Your task to perform on an android device: turn on data saver in the chrome app Image 0: 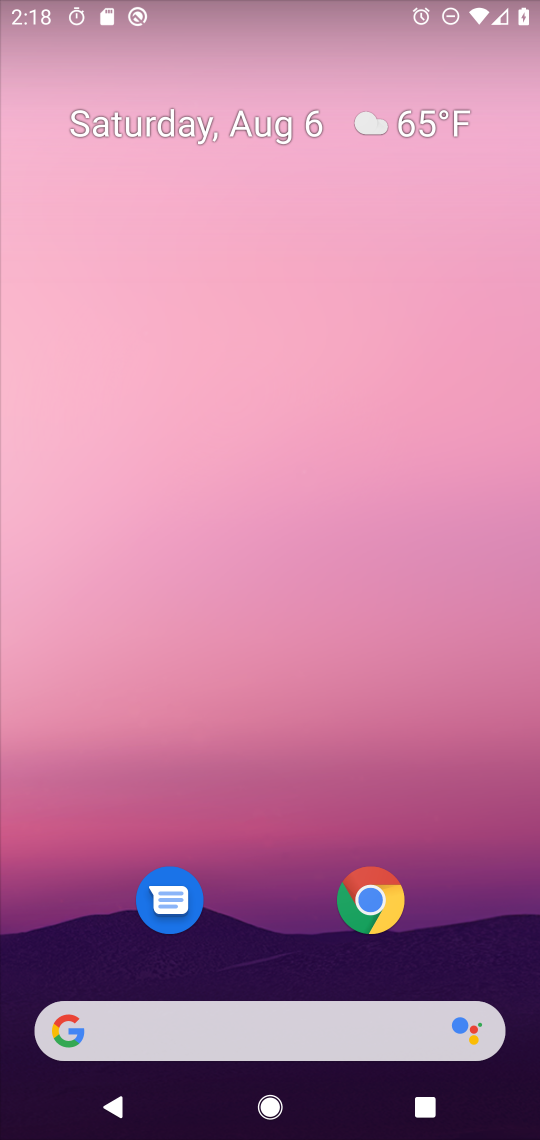
Step 0: drag from (266, 905) to (277, 103)
Your task to perform on an android device: turn on data saver in the chrome app Image 1: 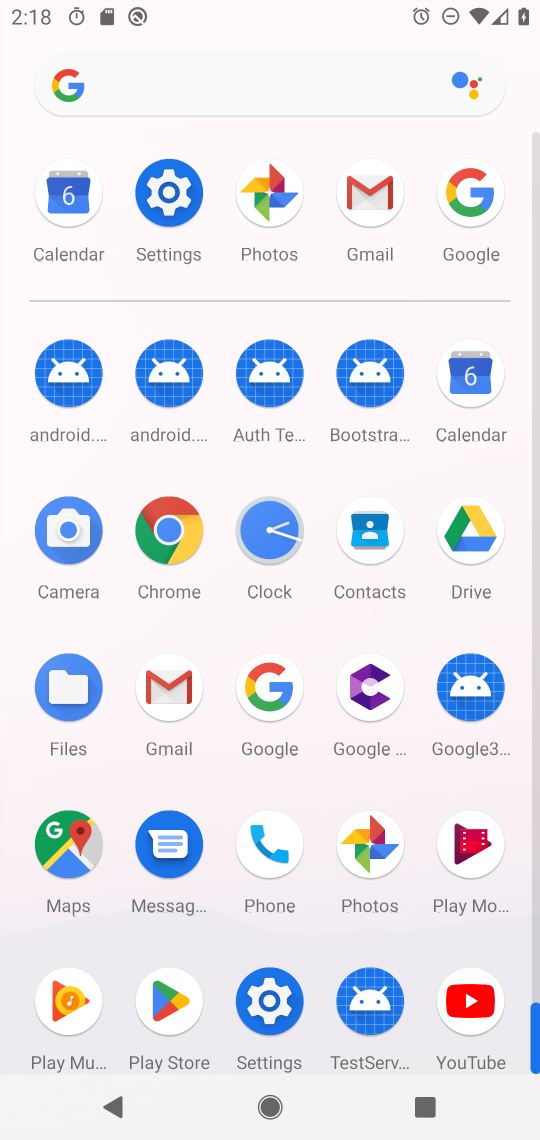
Step 1: click (166, 538)
Your task to perform on an android device: turn on data saver in the chrome app Image 2: 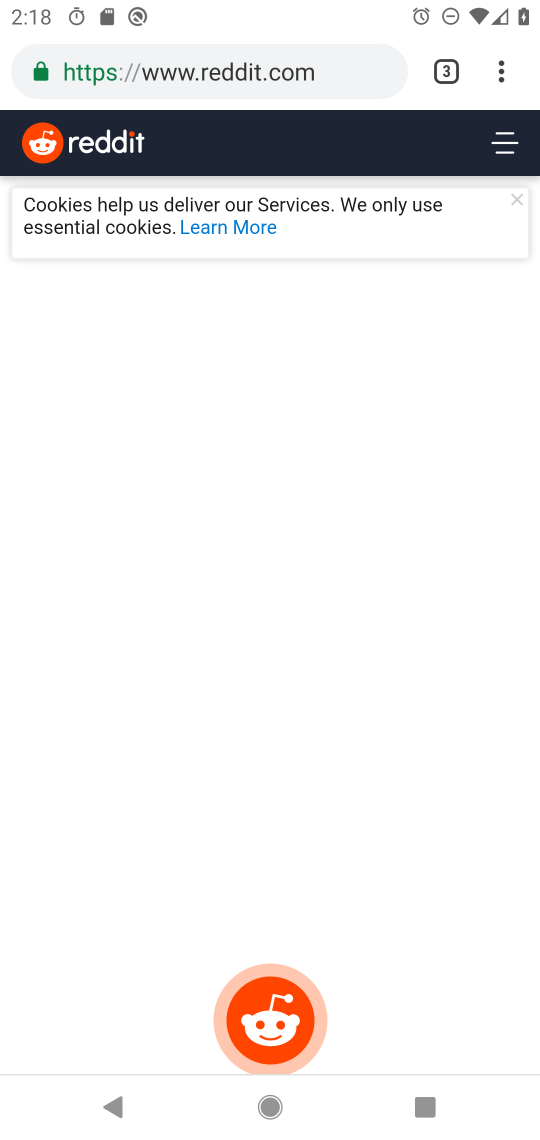
Step 2: click (500, 79)
Your task to perform on an android device: turn on data saver in the chrome app Image 3: 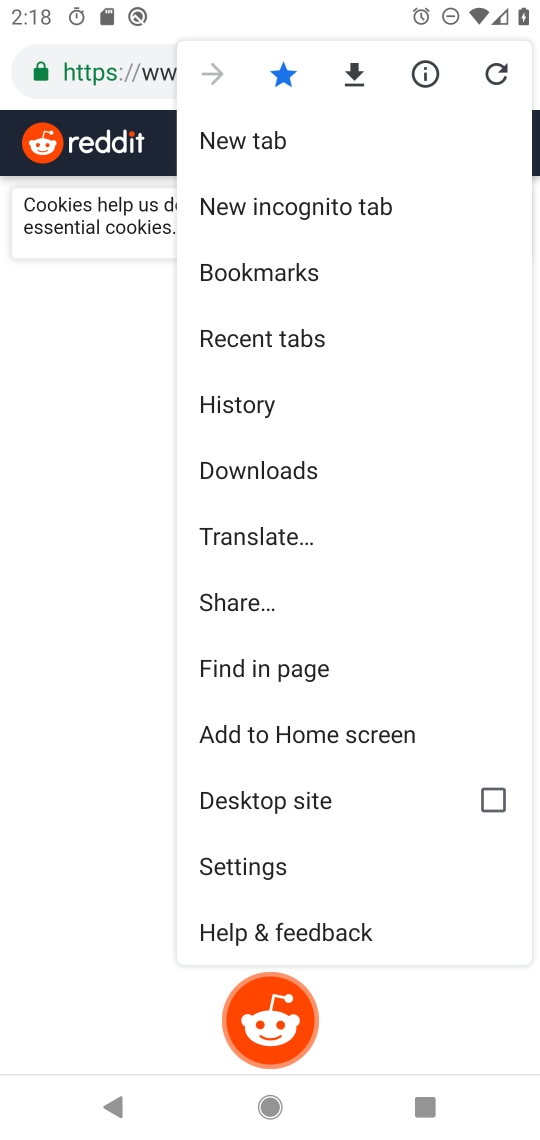
Step 3: click (231, 866)
Your task to perform on an android device: turn on data saver in the chrome app Image 4: 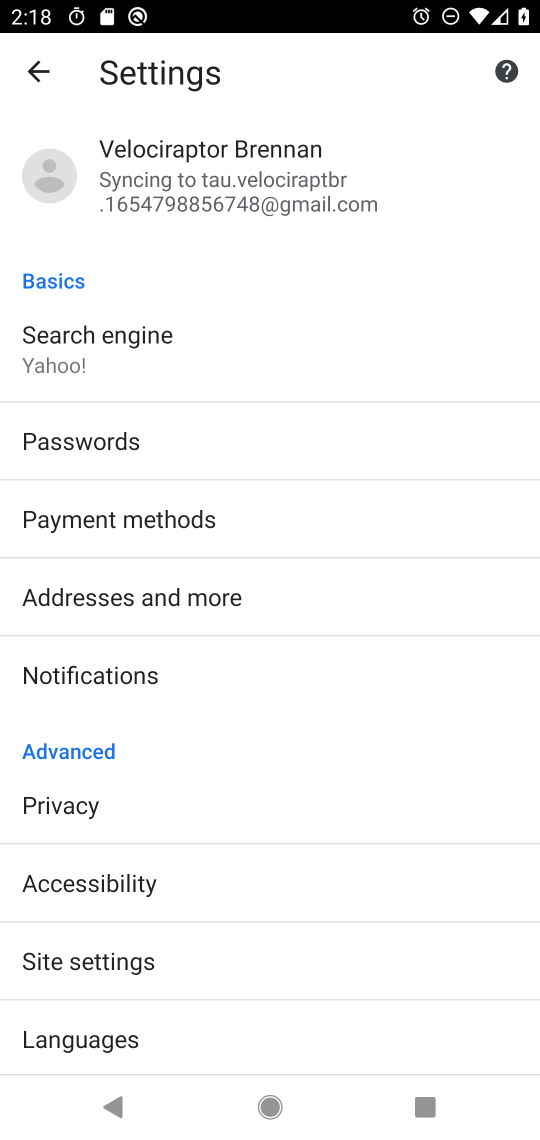
Step 4: drag from (89, 988) to (124, 551)
Your task to perform on an android device: turn on data saver in the chrome app Image 5: 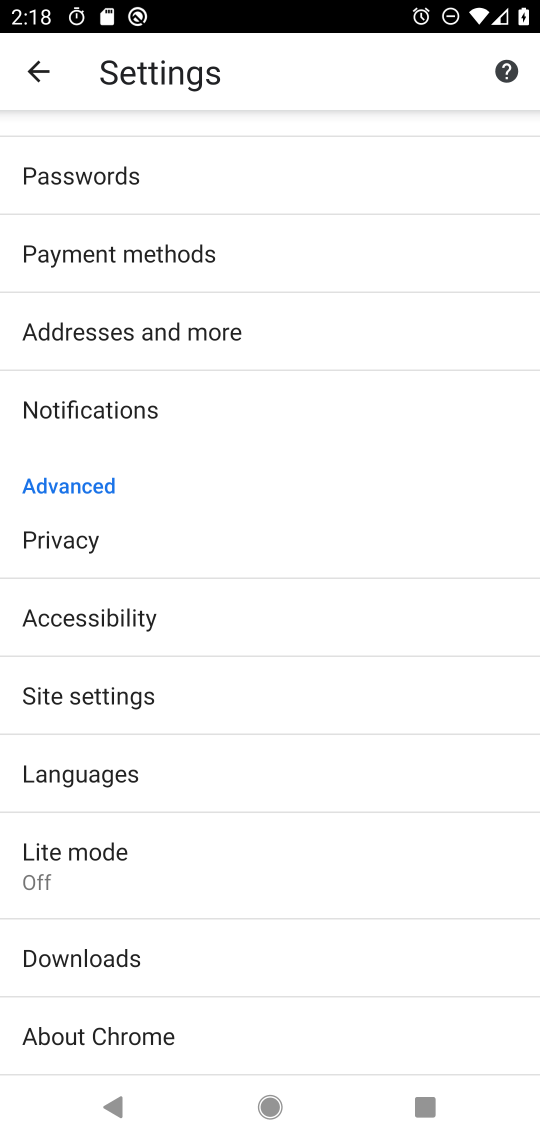
Step 5: click (95, 844)
Your task to perform on an android device: turn on data saver in the chrome app Image 6: 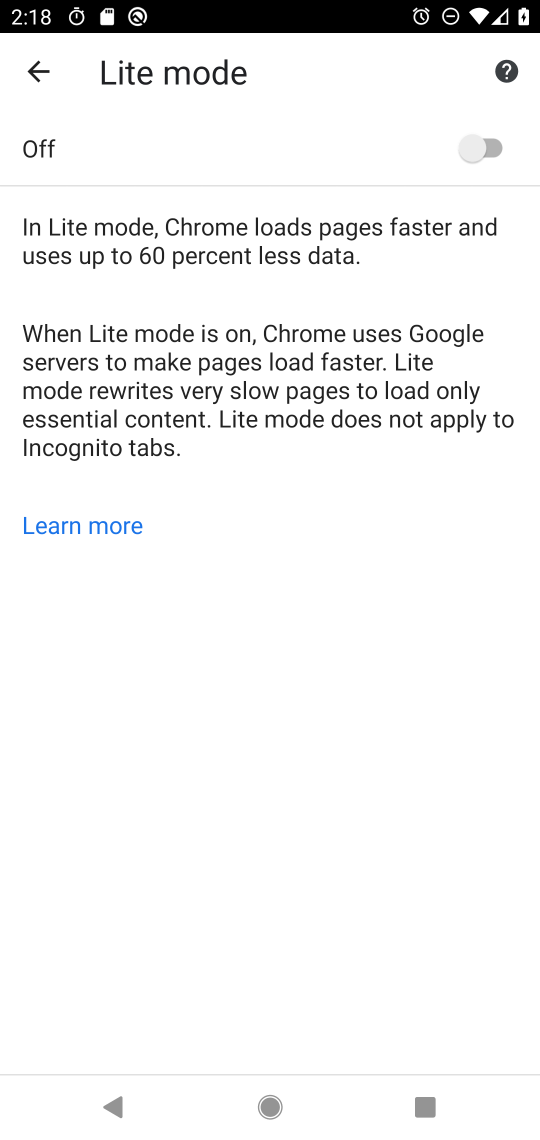
Step 6: click (496, 145)
Your task to perform on an android device: turn on data saver in the chrome app Image 7: 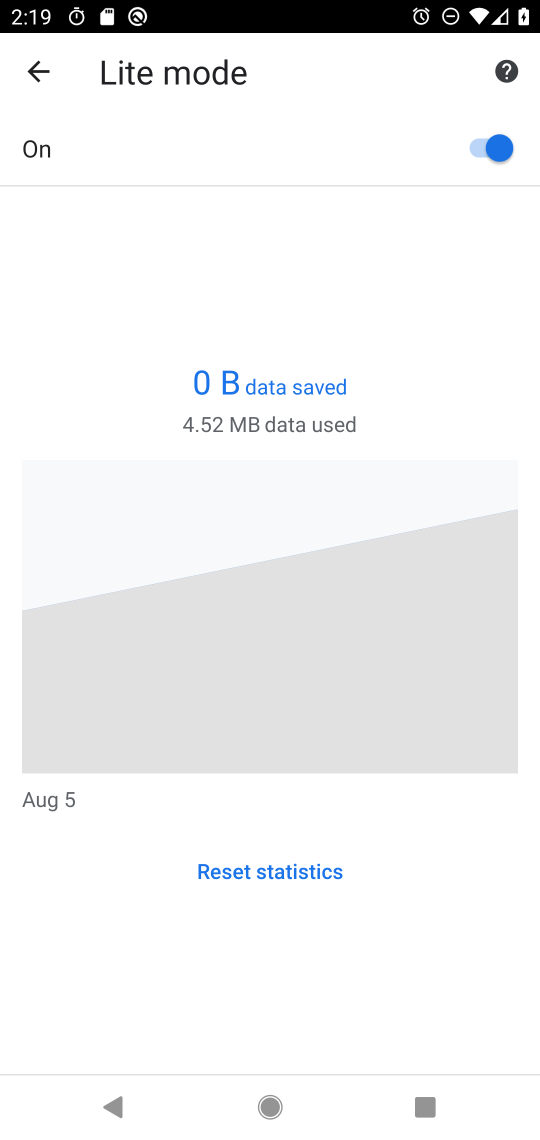
Step 7: task complete